Your task to perform on an android device: Look up the best rated power drills on Lowes.com Image 0: 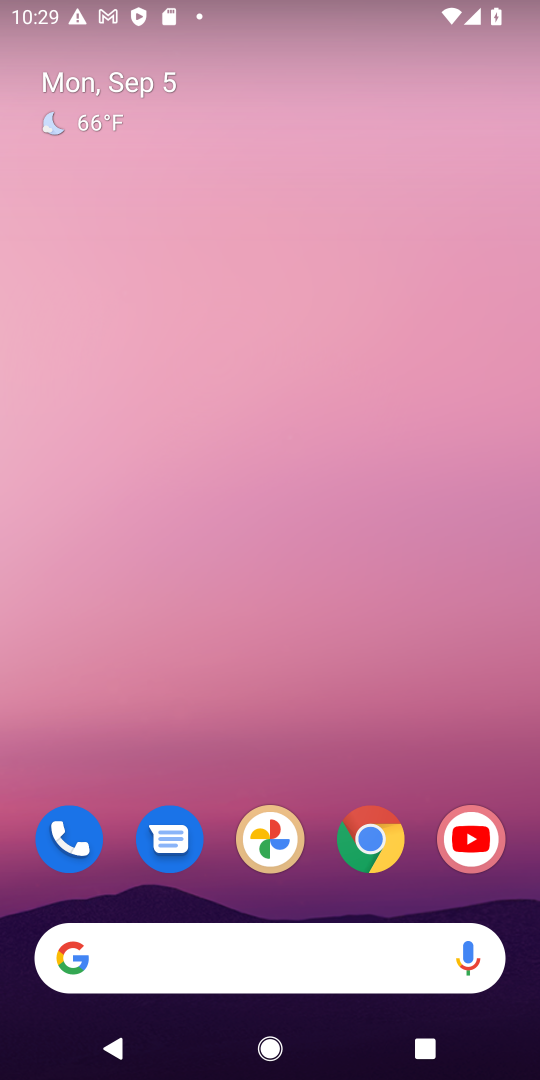
Step 0: drag from (399, 933) to (389, 370)
Your task to perform on an android device: Look up the best rated power drills on Lowes.com Image 1: 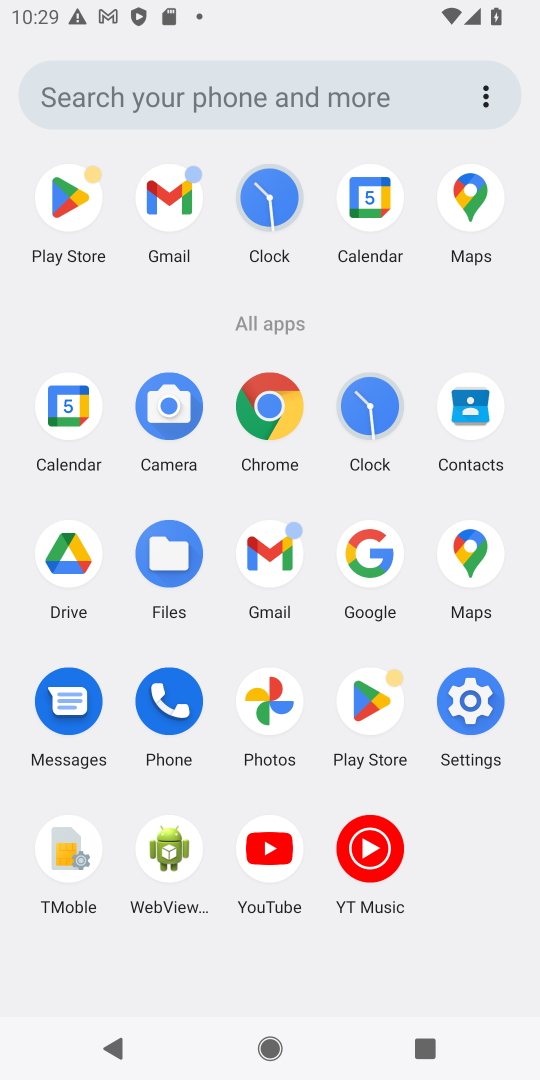
Step 1: click (363, 554)
Your task to perform on an android device: Look up the best rated power drills on Lowes.com Image 2: 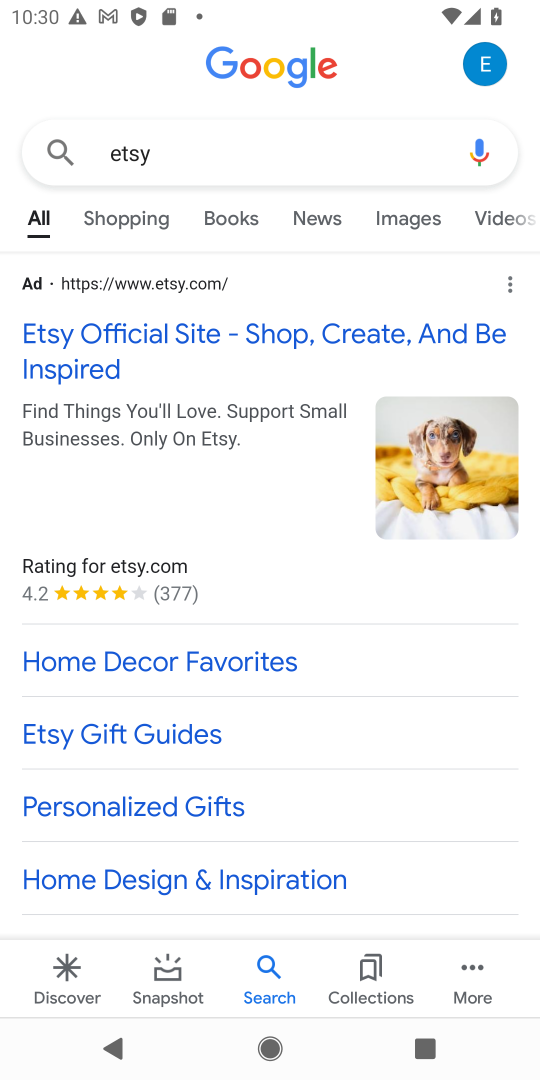
Step 2: click (170, 159)
Your task to perform on an android device: Look up the best rated power drills on Lowes.com Image 3: 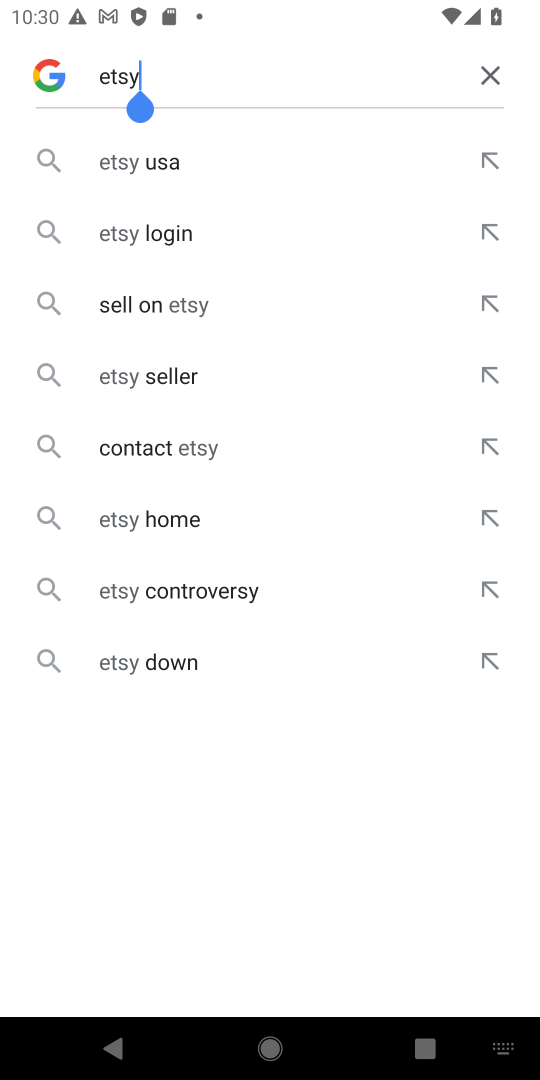
Step 3: click (492, 83)
Your task to perform on an android device: Look up the best rated power drills on Lowes.com Image 4: 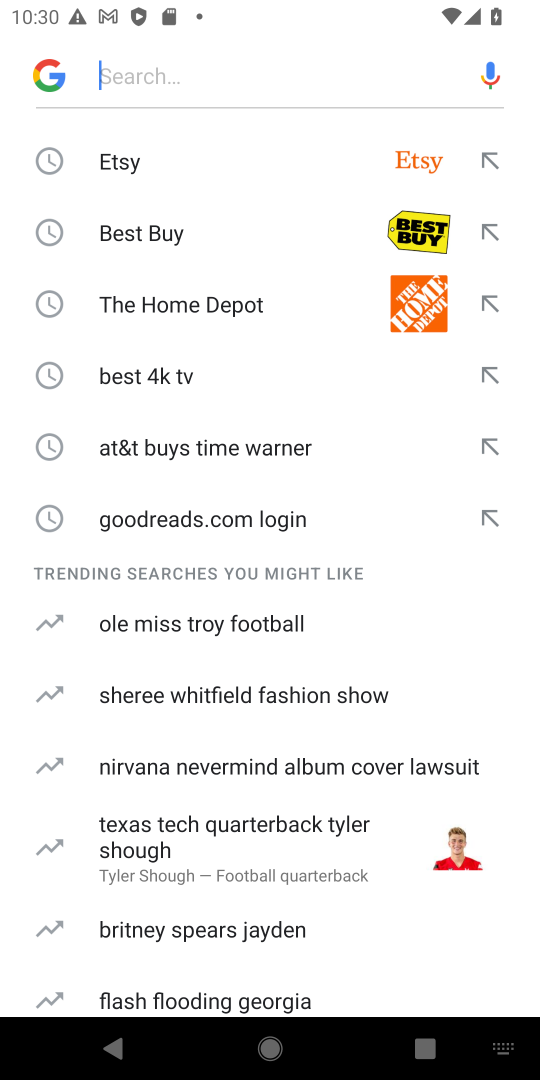
Step 4: type "Lowes.com"
Your task to perform on an android device: Look up the best rated power drills on Lowes.com Image 5: 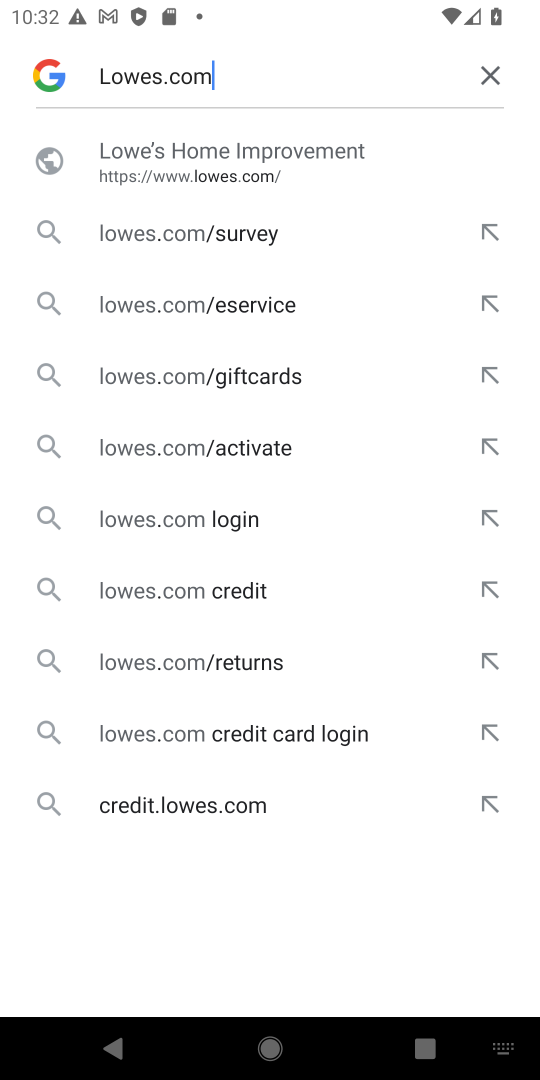
Step 5: click (218, 144)
Your task to perform on an android device: Look up the best rated power drills on Lowes.com Image 6: 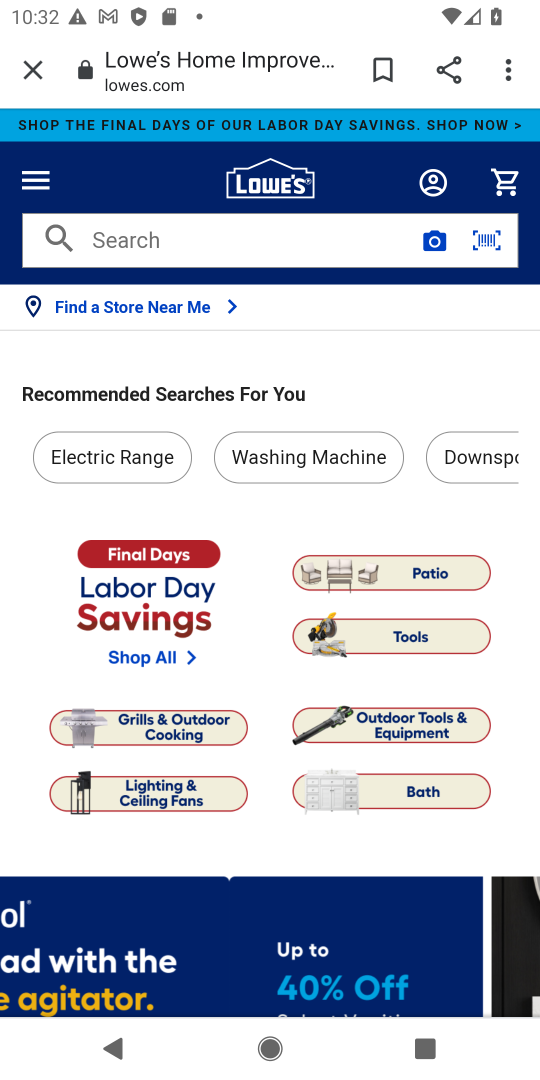
Step 6: click (210, 237)
Your task to perform on an android device: Look up the best rated power drills on Lowes.com Image 7: 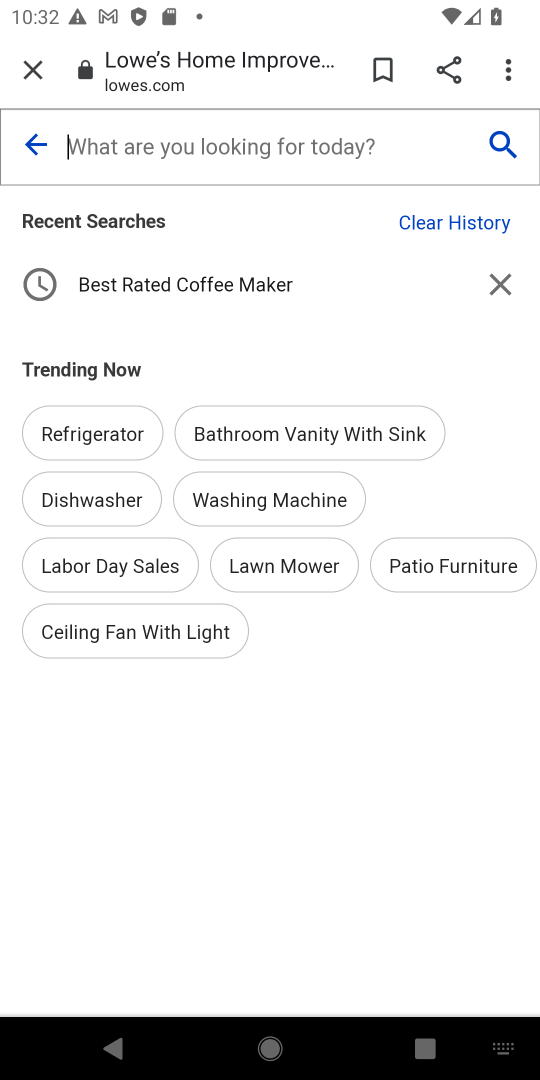
Step 7: type "best rated power drills"
Your task to perform on an android device: Look up the best rated power drills on Lowes.com Image 8: 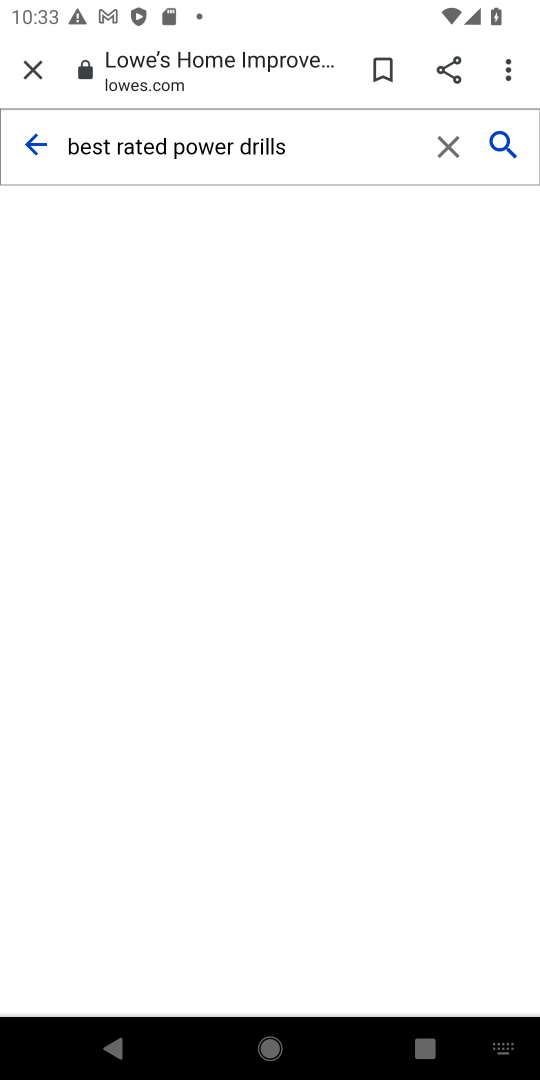
Step 8: click (499, 138)
Your task to perform on an android device: Look up the best rated power drills on Lowes.com Image 9: 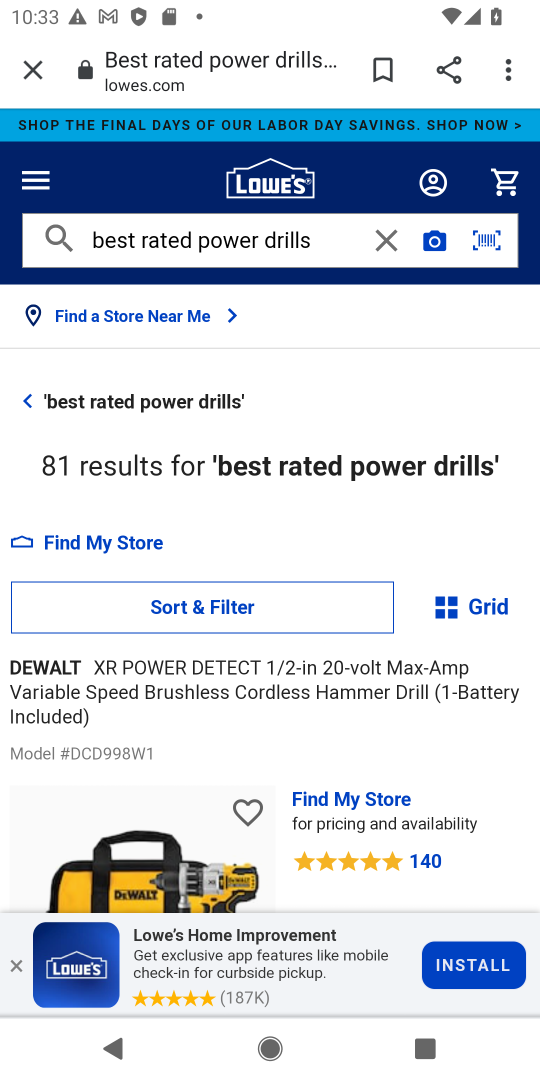
Step 9: task complete